Your task to perform on an android device: open device folders in google photos Image 0: 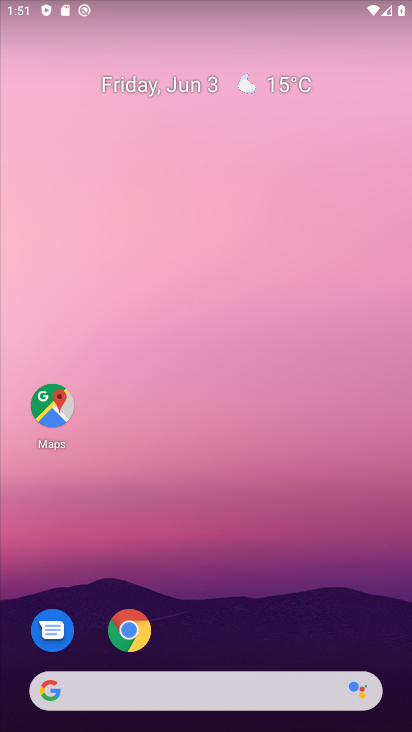
Step 0: press home button
Your task to perform on an android device: open device folders in google photos Image 1: 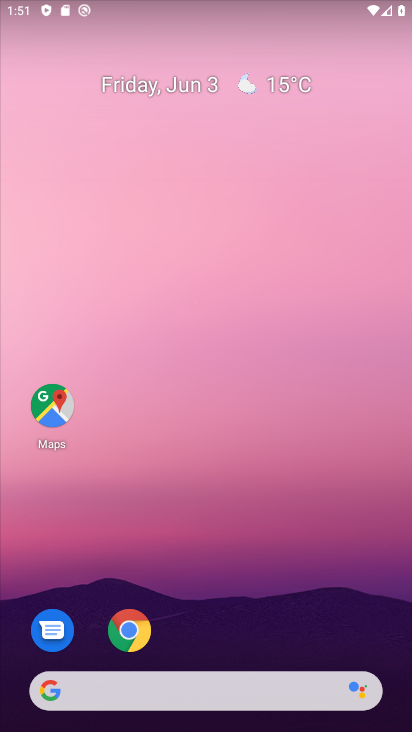
Step 1: drag from (305, 660) to (289, 2)
Your task to perform on an android device: open device folders in google photos Image 2: 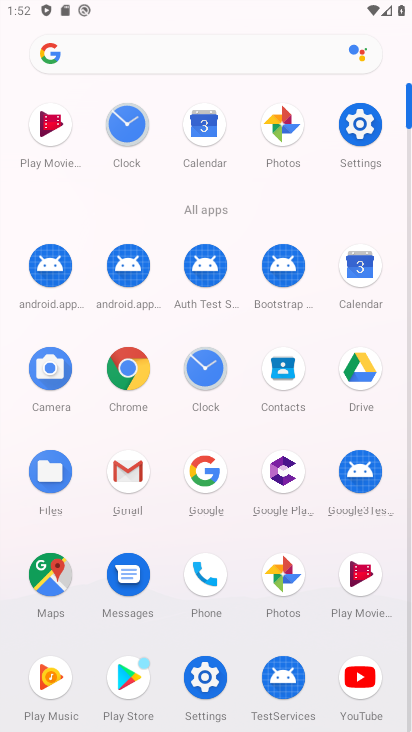
Step 2: click (283, 135)
Your task to perform on an android device: open device folders in google photos Image 3: 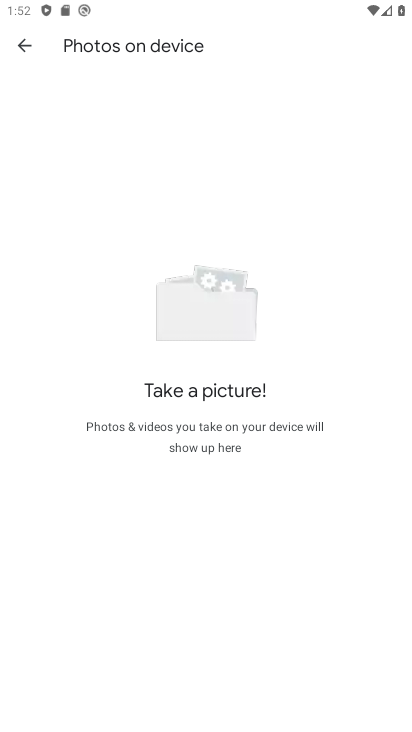
Step 3: click (15, 35)
Your task to perform on an android device: open device folders in google photos Image 4: 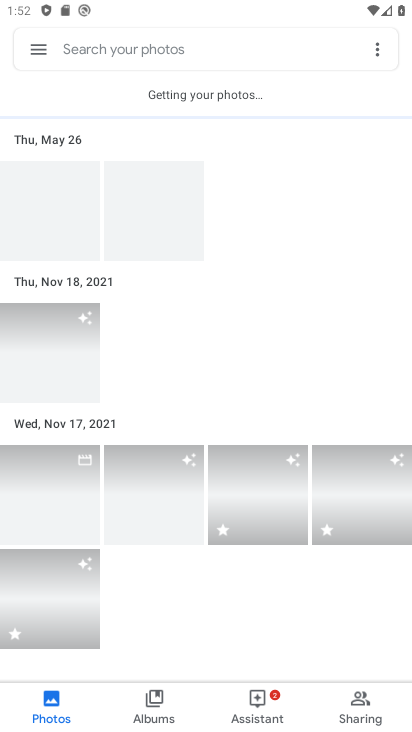
Step 4: click (24, 42)
Your task to perform on an android device: open device folders in google photos Image 5: 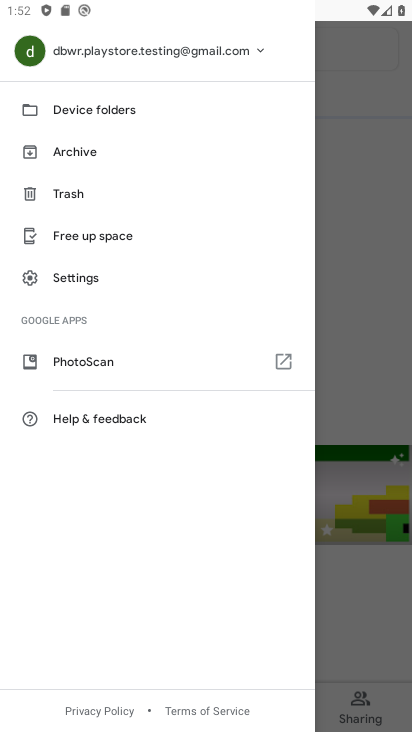
Step 5: click (104, 109)
Your task to perform on an android device: open device folders in google photos Image 6: 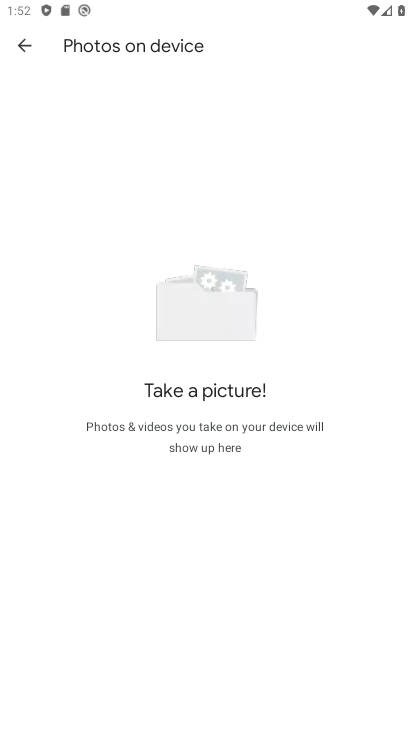
Step 6: task complete